Your task to perform on an android device: turn off priority inbox in the gmail app Image 0: 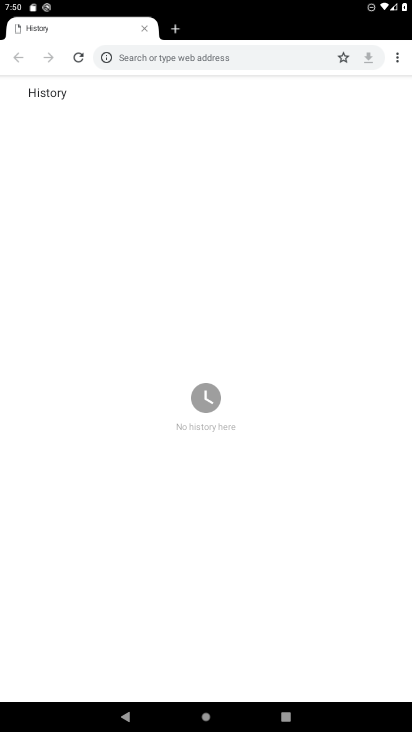
Step 0: press home button
Your task to perform on an android device: turn off priority inbox in the gmail app Image 1: 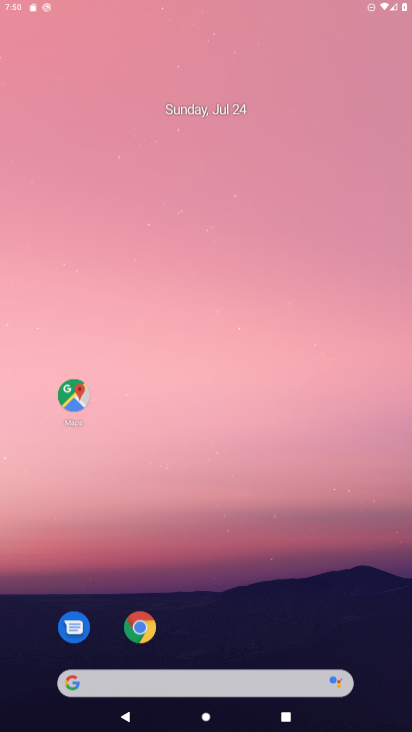
Step 1: drag from (398, 662) to (217, 63)
Your task to perform on an android device: turn off priority inbox in the gmail app Image 2: 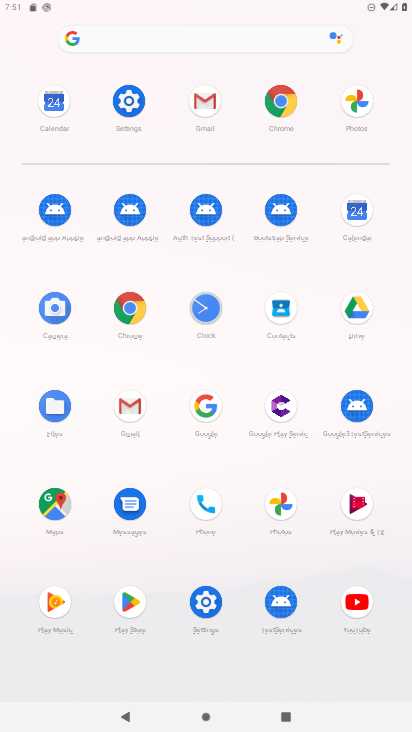
Step 2: click (125, 392)
Your task to perform on an android device: turn off priority inbox in the gmail app Image 3: 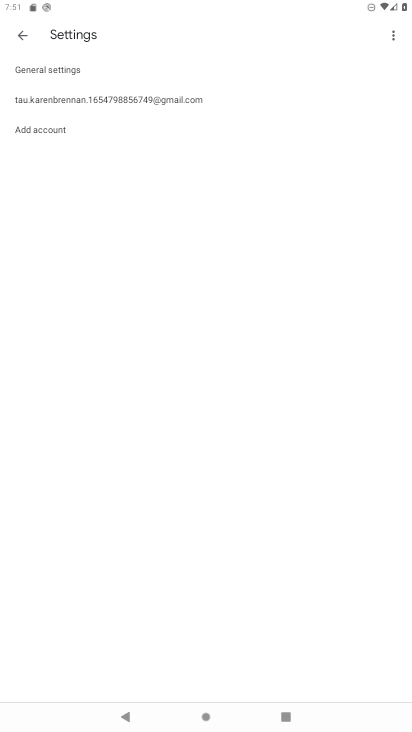
Step 3: click (143, 105)
Your task to perform on an android device: turn off priority inbox in the gmail app Image 4: 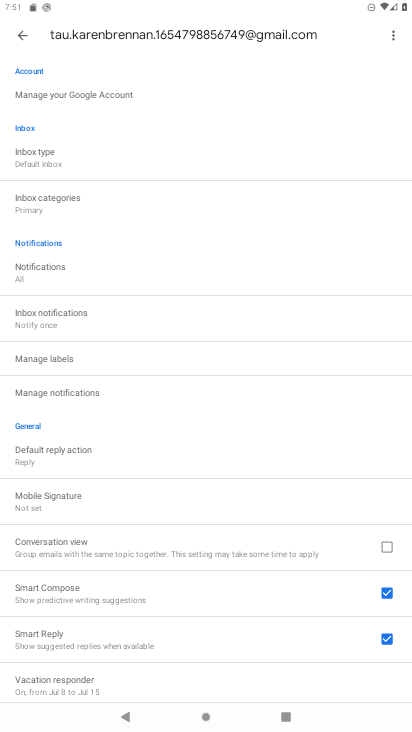
Step 4: click (78, 163)
Your task to perform on an android device: turn off priority inbox in the gmail app Image 5: 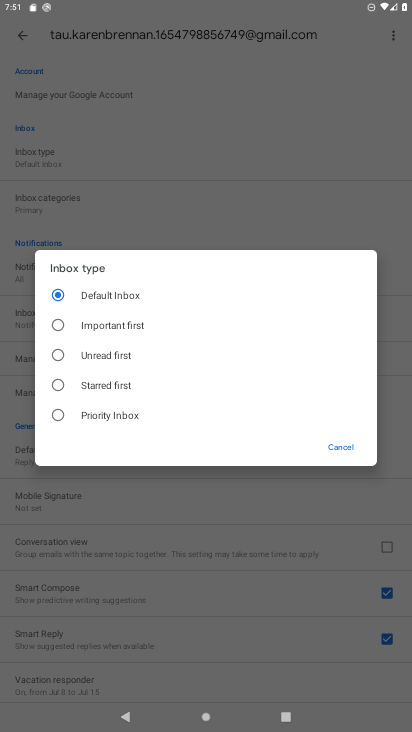
Step 5: task complete